Your task to perform on an android device: Open Google Maps and go to "Timeline" Image 0: 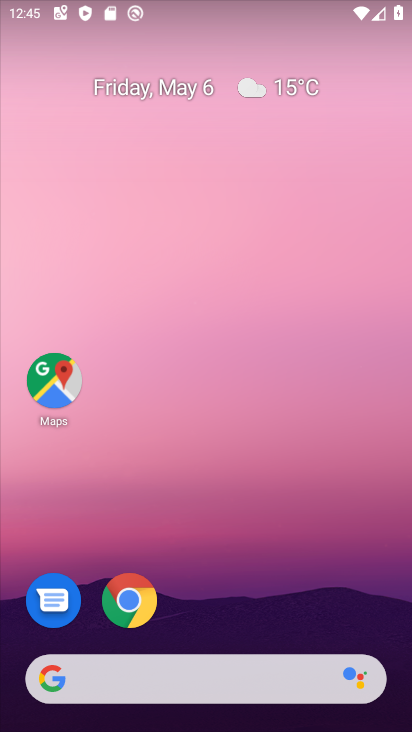
Step 0: drag from (336, 643) to (294, 73)
Your task to perform on an android device: Open Google Maps and go to "Timeline" Image 1: 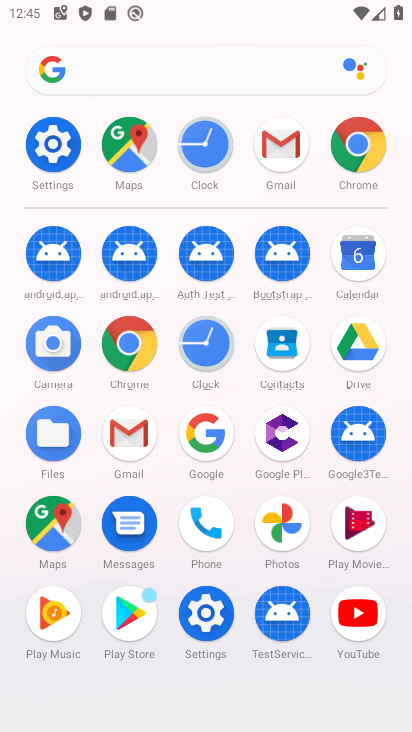
Step 1: click (108, 148)
Your task to perform on an android device: Open Google Maps and go to "Timeline" Image 2: 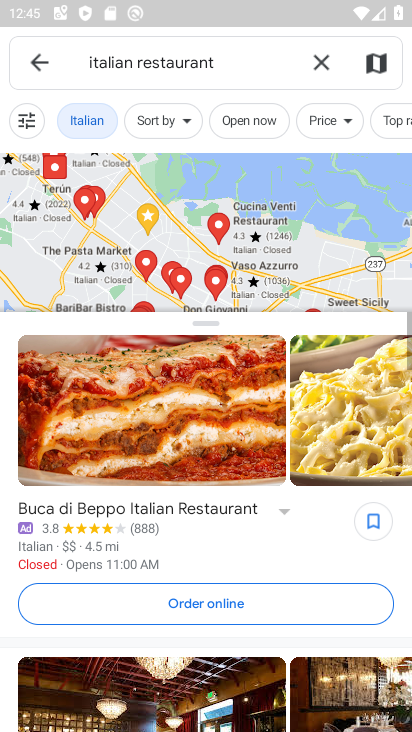
Step 2: click (324, 56)
Your task to perform on an android device: Open Google Maps and go to "Timeline" Image 3: 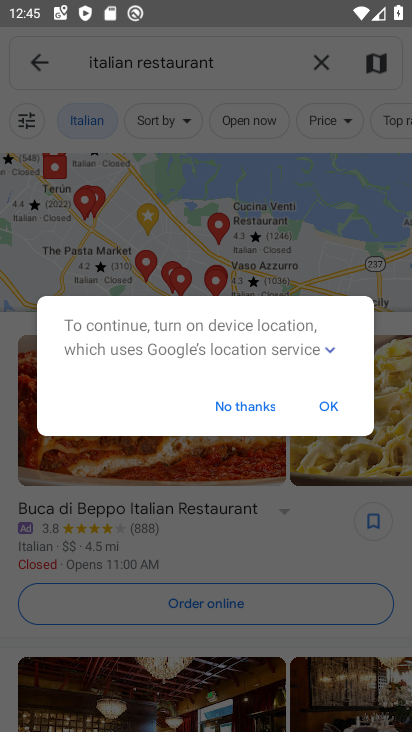
Step 3: click (242, 414)
Your task to perform on an android device: Open Google Maps and go to "Timeline" Image 4: 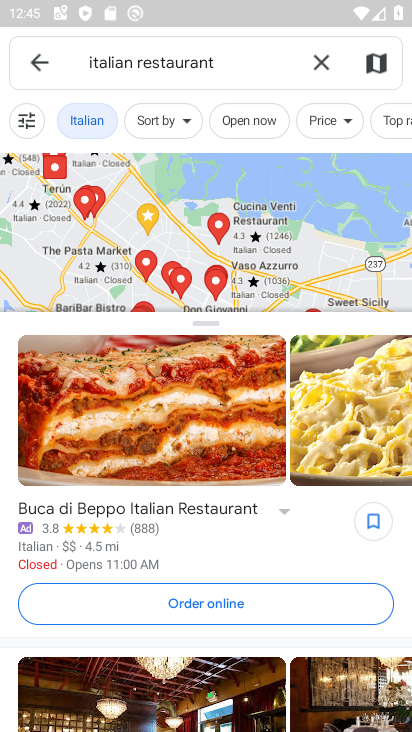
Step 4: click (310, 53)
Your task to perform on an android device: Open Google Maps and go to "Timeline" Image 5: 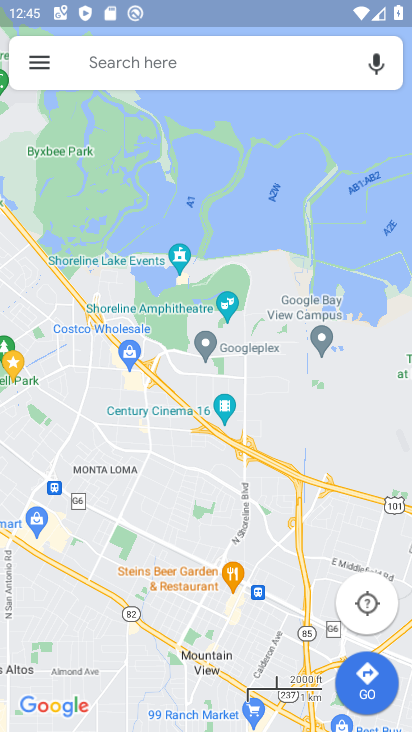
Step 5: click (42, 46)
Your task to perform on an android device: Open Google Maps and go to "Timeline" Image 6: 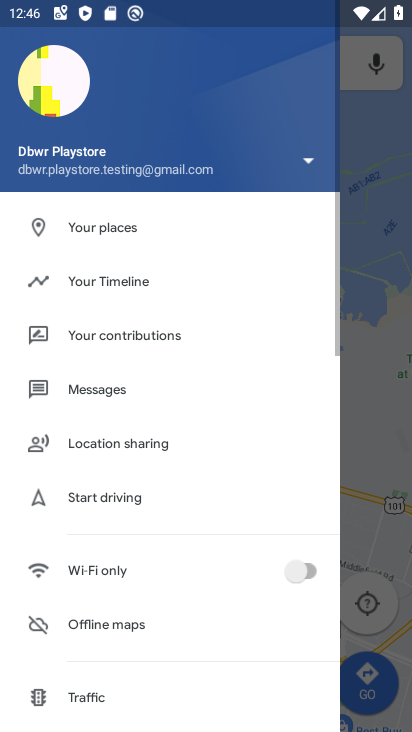
Step 6: click (97, 296)
Your task to perform on an android device: Open Google Maps and go to "Timeline" Image 7: 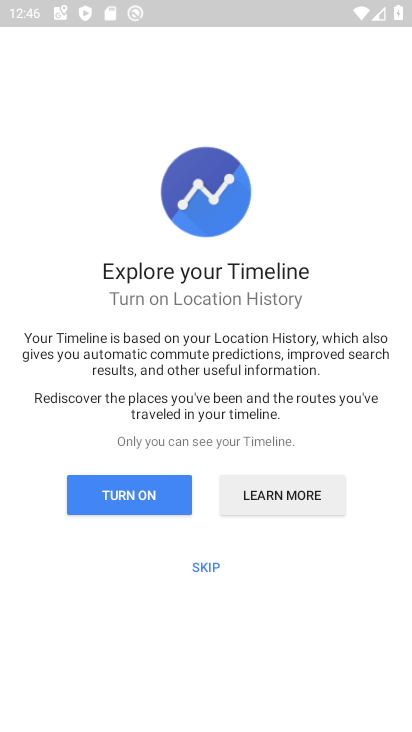
Step 7: click (210, 569)
Your task to perform on an android device: Open Google Maps and go to "Timeline" Image 8: 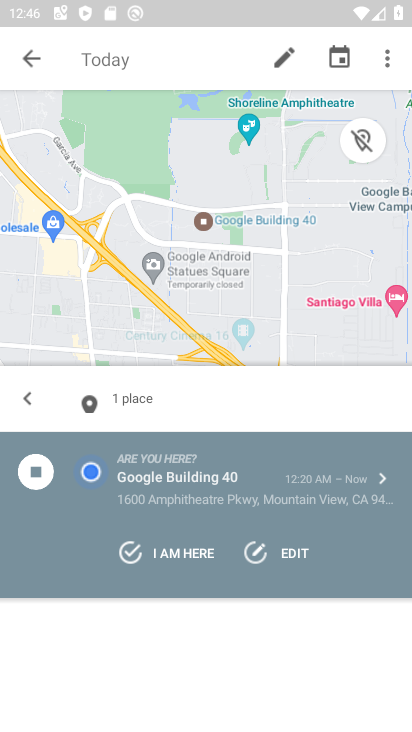
Step 8: task complete